Your task to perform on an android device: turn notification dots on Image 0: 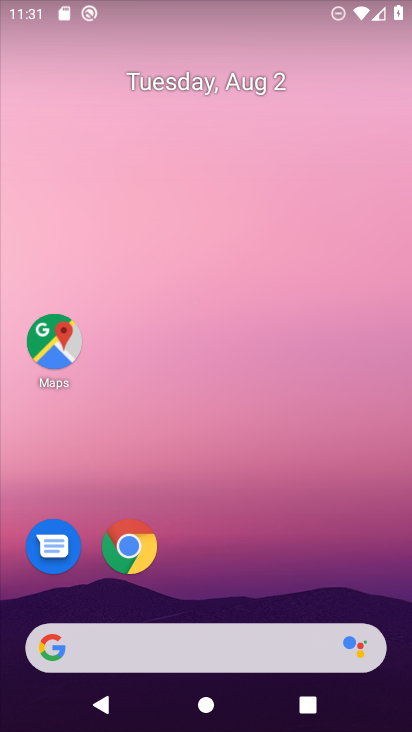
Step 0: drag from (213, 571) to (204, 123)
Your task to perform on an android device: turn notification dots on Image 1: 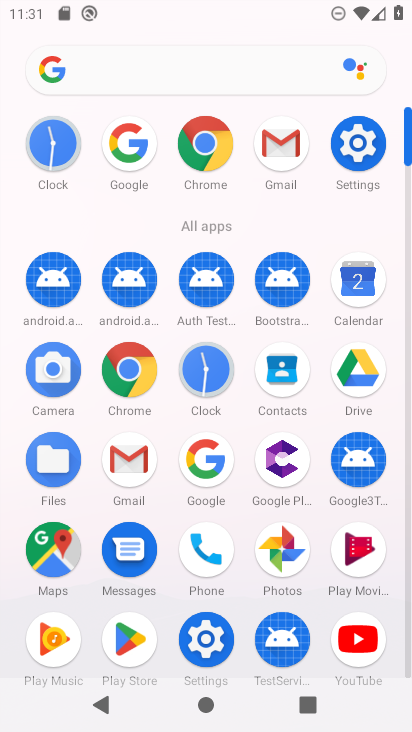
Step 1: click (349, 144)
Your task to perform on an android device: turn notification dots on Image 2: 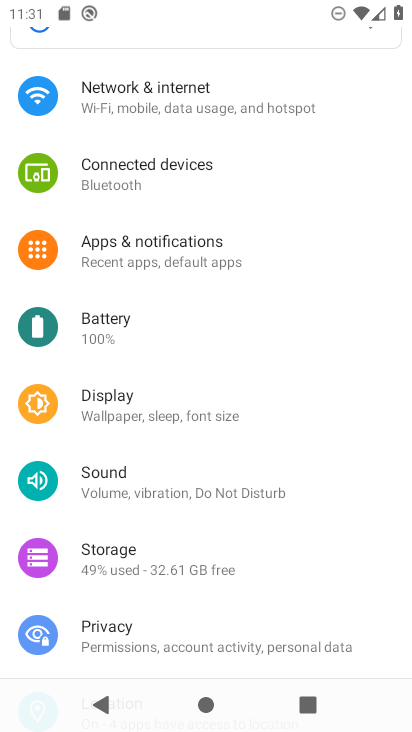
Step 2: click (222, 251)
Your task to perform on an android device: turn notification dots on Image 3: 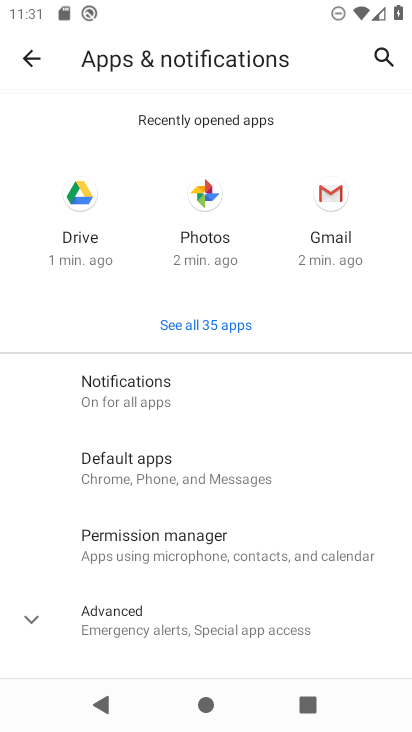
Step 3: click (176, 376)
Your task to perform on an android device: turn notification dots on Image 4: 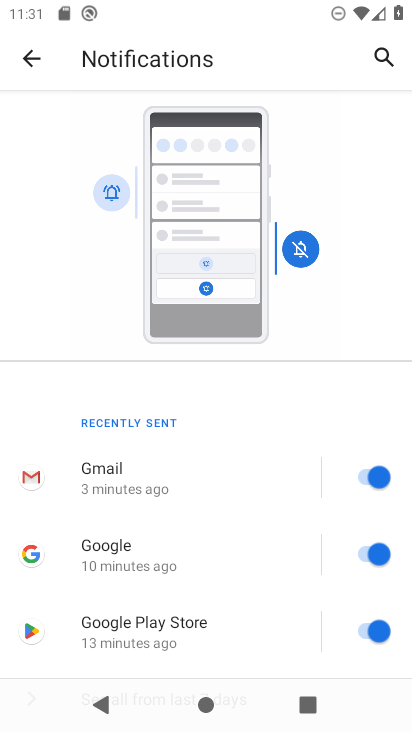
Step 4: drag from (176, 635) to (184, 134)
Your task to perform on an android device: turn notification dots on Image 5: 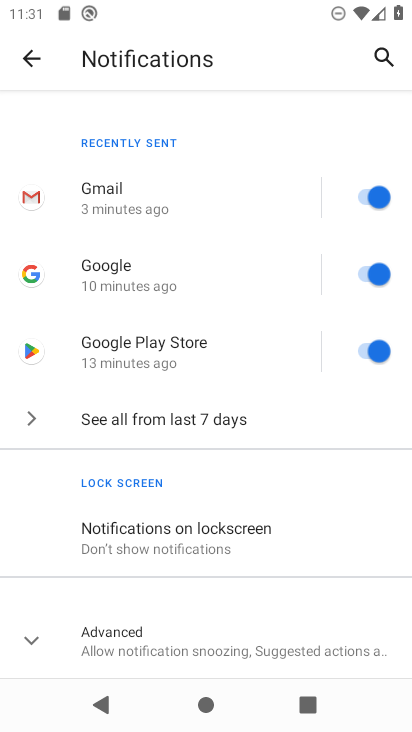
Step 5: click (214, 629)
Your task to perform on an android device: turn notification dots on Image 6: 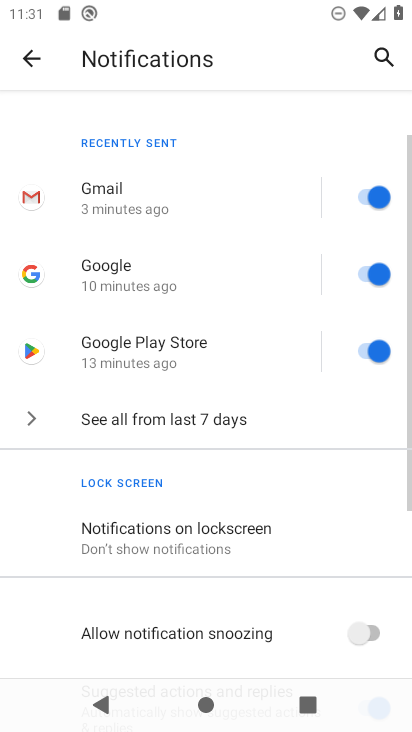
Step 6: task complete